Your task to perform on an android device: show emergency info Image 0: 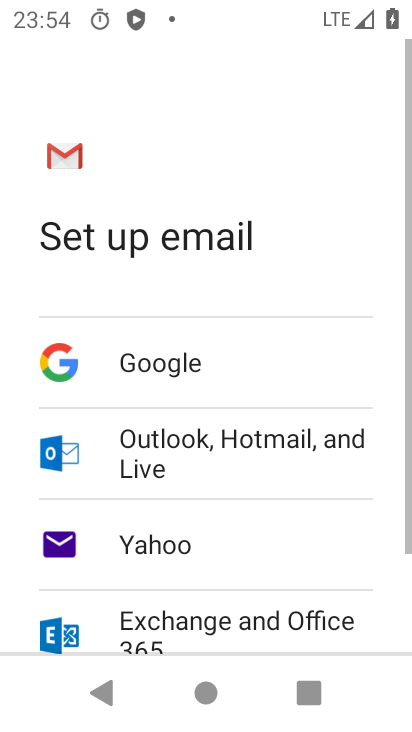
Step 0: press home button
Your task to perform on an android device: show emergency info Image 1: 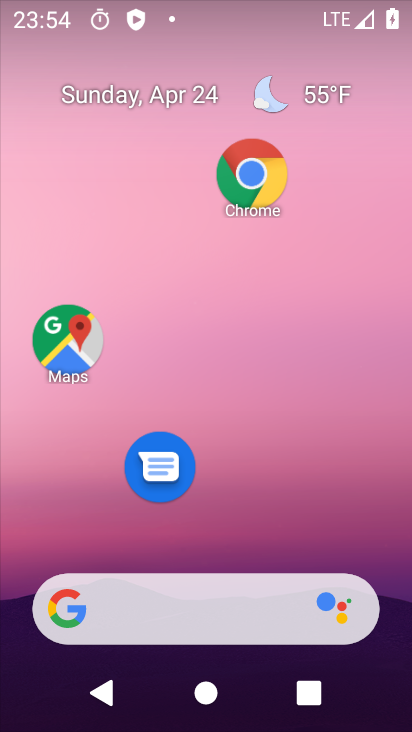
Step 1: drag from (320, 488) to (309, 95)
Your task to perform on an android device: show emergency info Image 2: 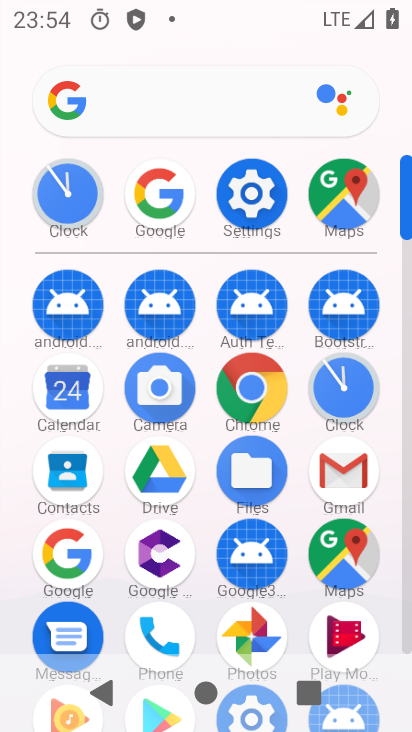
Step 2: click (254, 192)
Your task to perform on an android device: show emergency info Image 3: 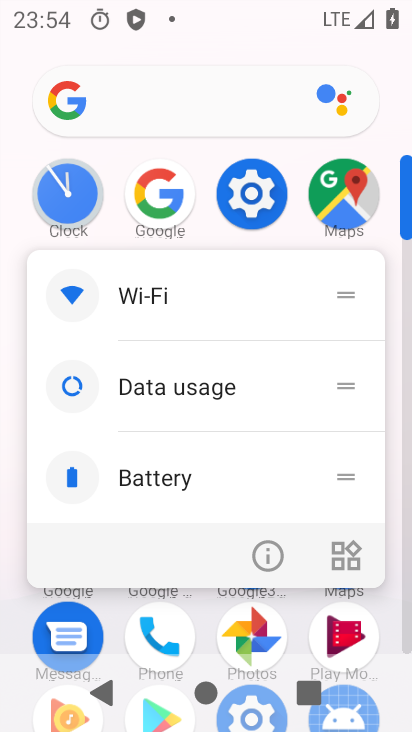
Step 3: click (258, 189)
Your task to perform on an android device: show emergency info Image 4: 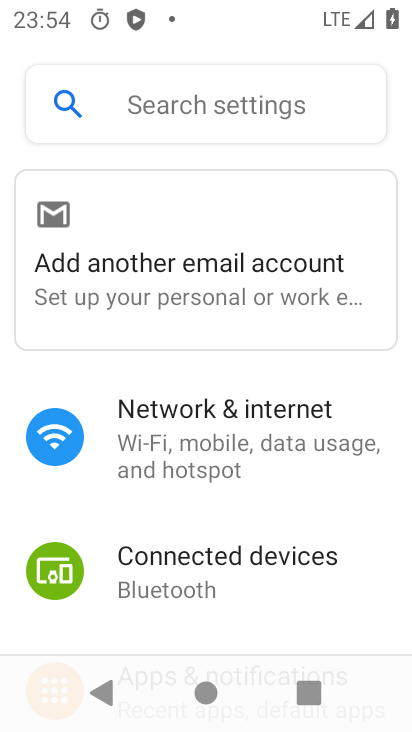
Step 4: drag from (272, 461) to (273, 23)
Your task to perform on an android device: show emergency info Image 5: 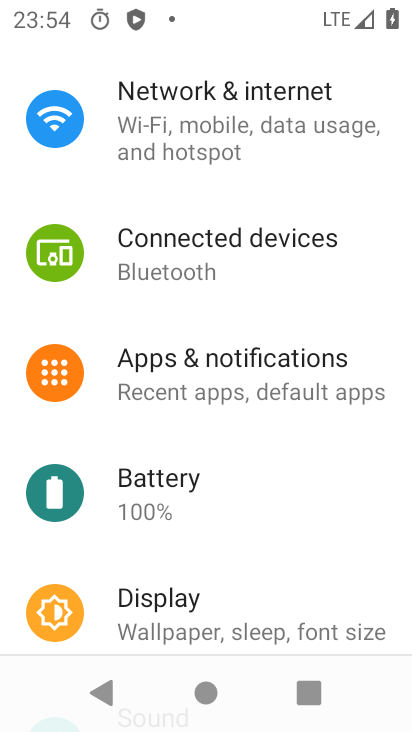
Step 5: drag from (276, 585) to (268, 15)
Your task to perform on an android device: show emergency info Image 6: 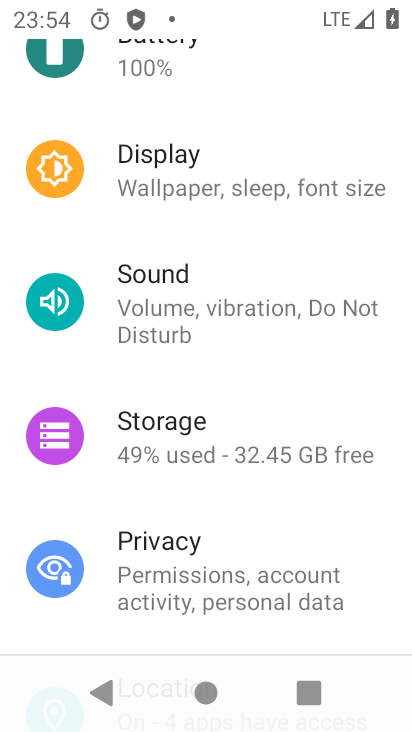
Step 6: drag from (229, 546) to (221, 19)
Your task to perform on an android device: show emergency info Image 7: 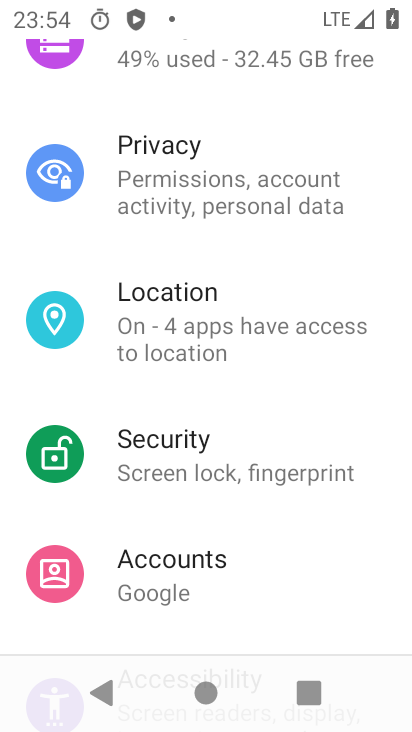
Step 7: drag from (206, 551) to (238, 2)
Your task to perform on an android device: show emergency info Image 8: 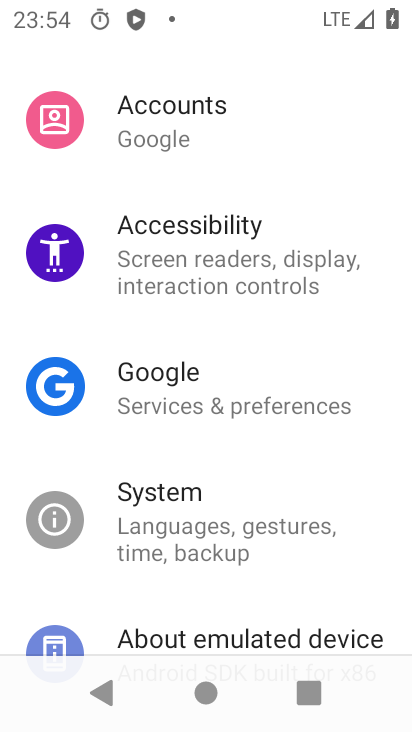
Step 8: drag from (198, 618) to (250, 230)
Your task to perform on an android device: show emergency info Image 9: 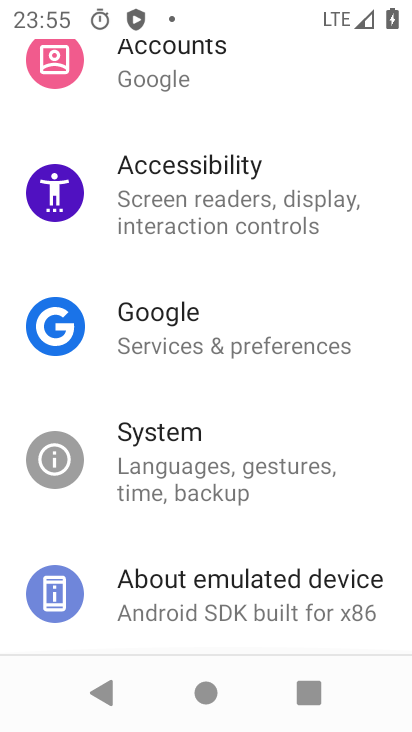
Step 9: click (180, 588)
Your task to perform on an android device: show emergency info Image 10: 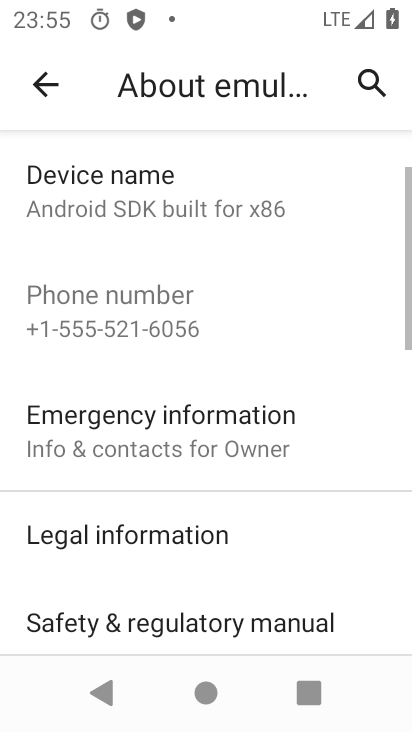
Step 10: click (127, 413)
Your task to perform on an android device: show emergency info Image 11: 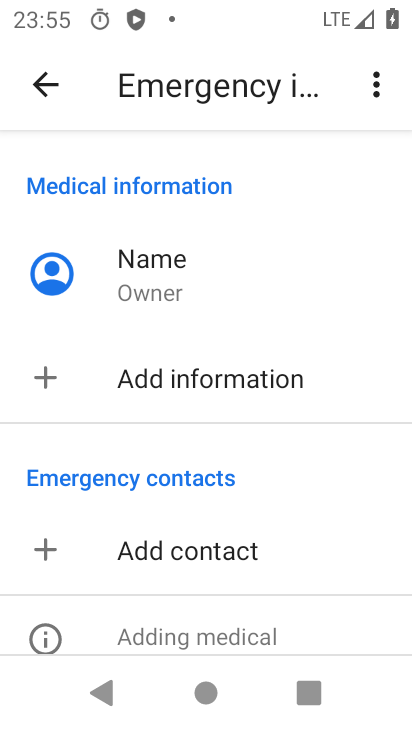
Step 11: task complete